Your task to perform on an android device: Open Chrome and go to settings Image 0: 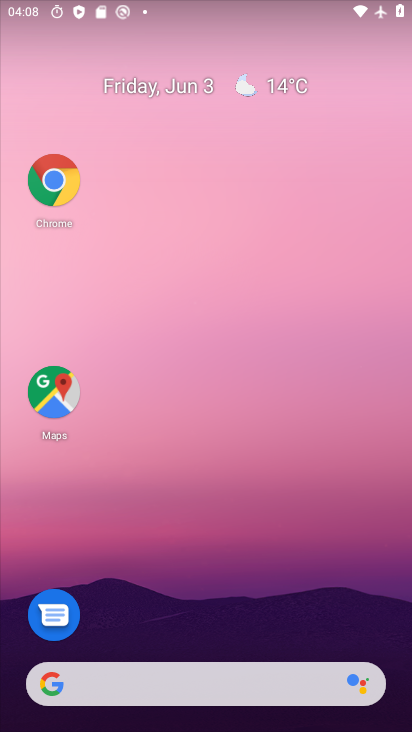
Step 0: click (72, 196)
Your task to perform on an android device: Open Chrome and go to settings Image 1: 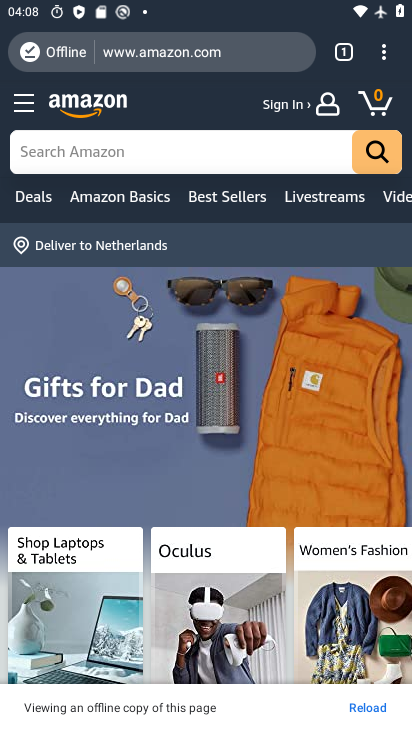
Step 1: click (384, 46)
Your task to perform on an android device: Open Chrome and go to settings Image 2: 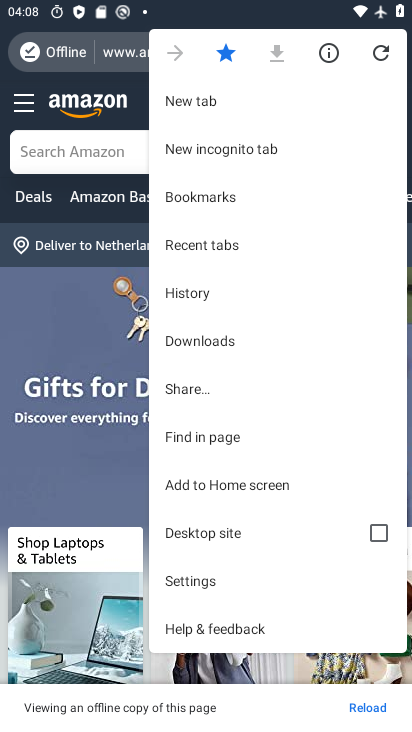
Step 2: click (204, 582)
Your task to perform on an android device: Open Chrome and go to settings Image 3: 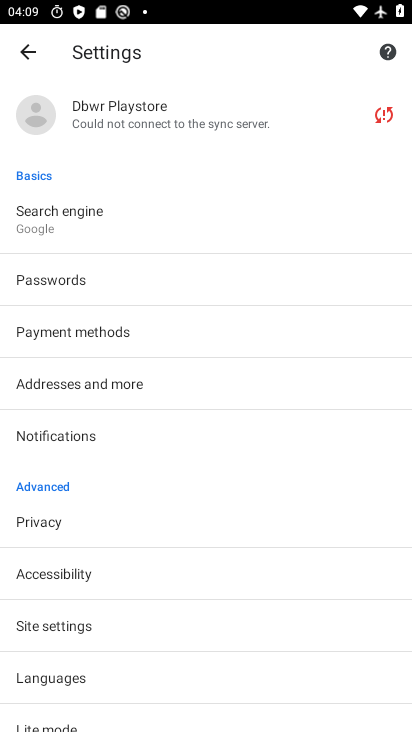
Step 3: task complete